Your task to perform on an android device: Do I have any events this weekend? Image 0: 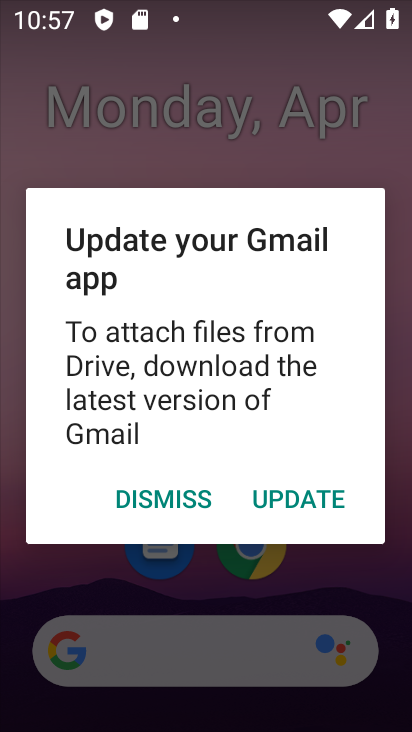
Step 0: press home button
Your task to perform on an android device: Do I have any events this weekend? Image 1: 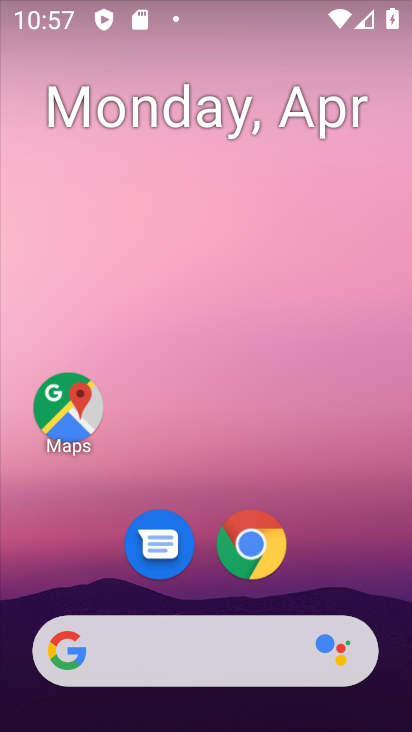
Step 1: drag from (376, 512) to (377, 5)
Your task to perform on an android device: Do I have any events this weekend? Image 2: 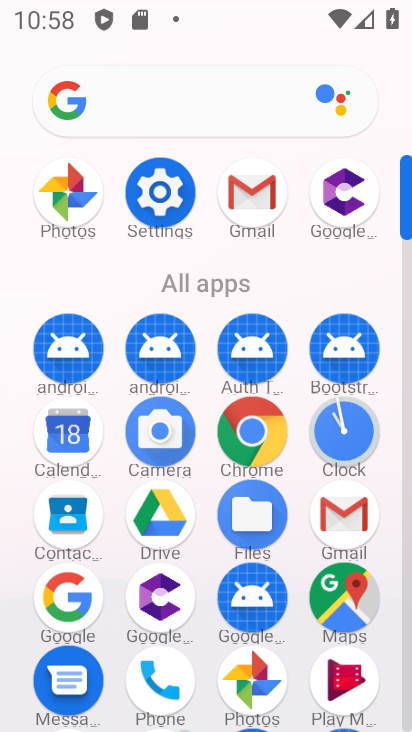
Step 2: click (64, 441)
Your task to perform on an android device: Do I have any events this weekend? Image 3: 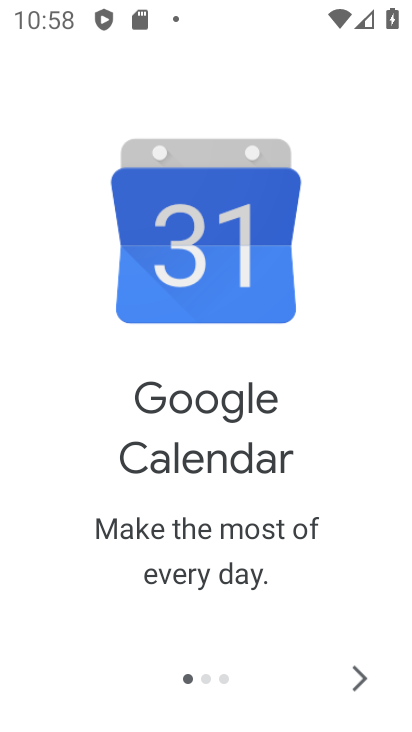
Step 3: click (366, 679)
Your task to perform on an android device: Do I have any events this weekend? Image 4: 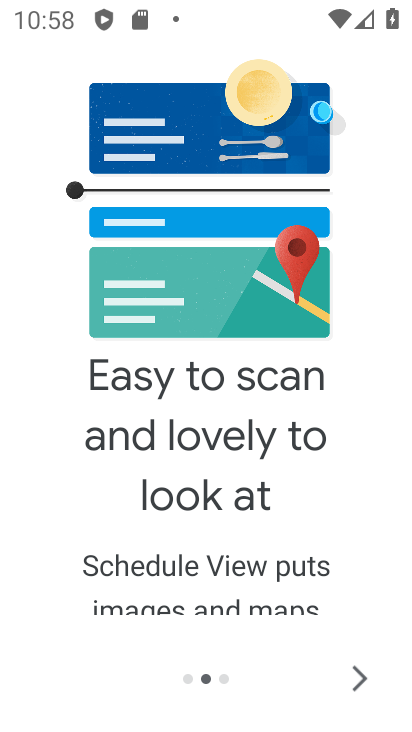
Step 4: click (366, 679)
Your task to perform on an android device: Do I have any events this weekend? Image 5: 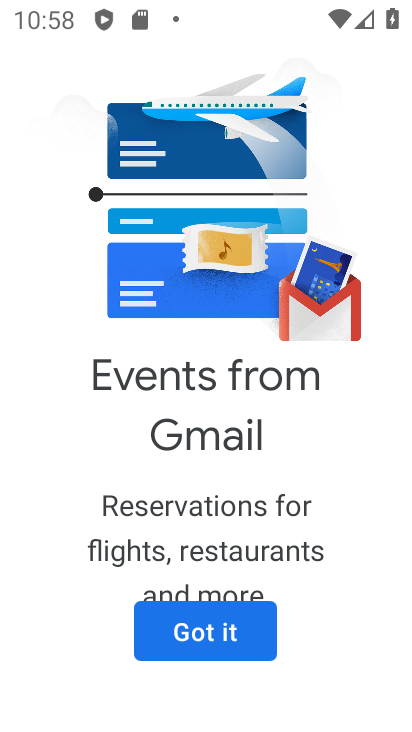
Step 5: click (214, 635)
Your task to perform on an android device: Do I have any events this weekend? Image 6: 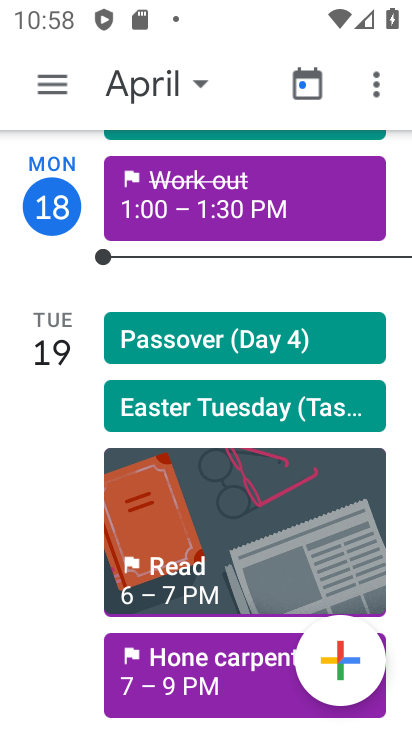
Step 6: click (199, 91)
Your task to perform on an android device: Do I have any events this weekend? Image 7: 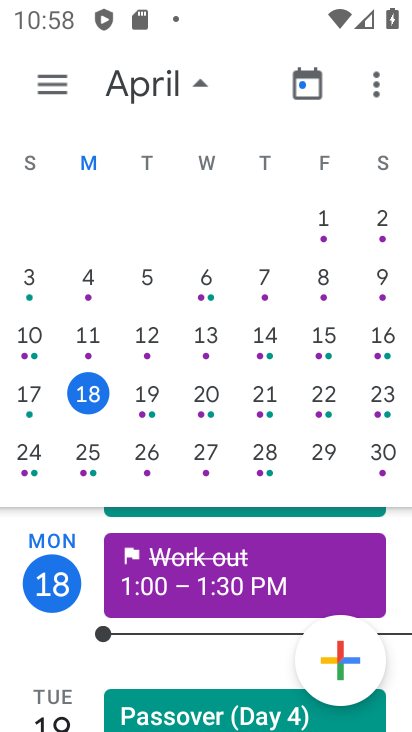
Step 7: click (22, 459)
Your task to perform on an android device: Do I have any events this weekend? Image 8: 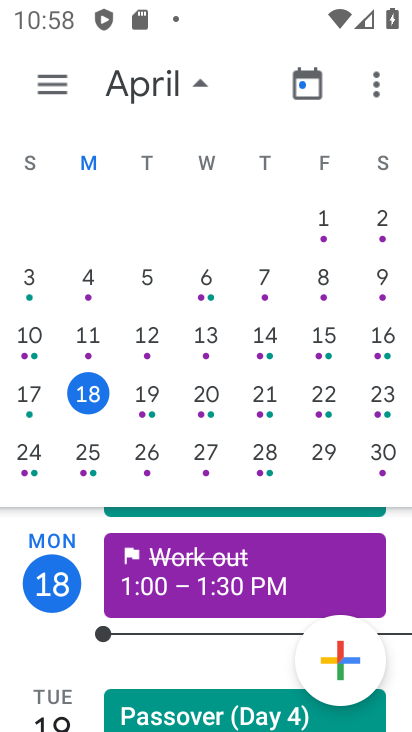
Step 8: click (28, 455)
Your task to perform on an android device: Do I have any events this weekend? Image 9: 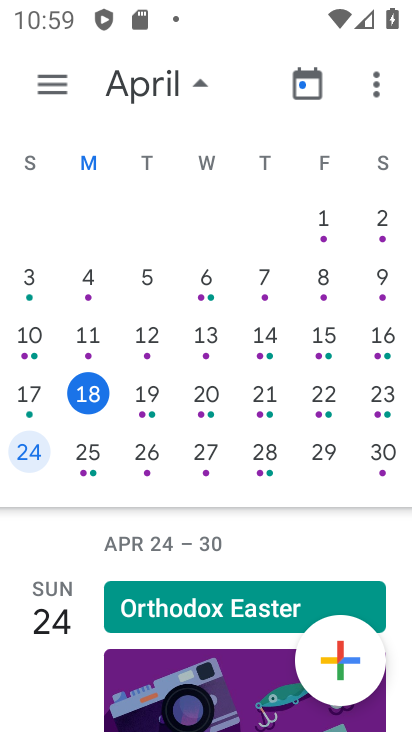
Step 9: drag from (209, 586) to (229, 277)
Your task to perform on an android device: Do I have any events this weekend? Image 10: 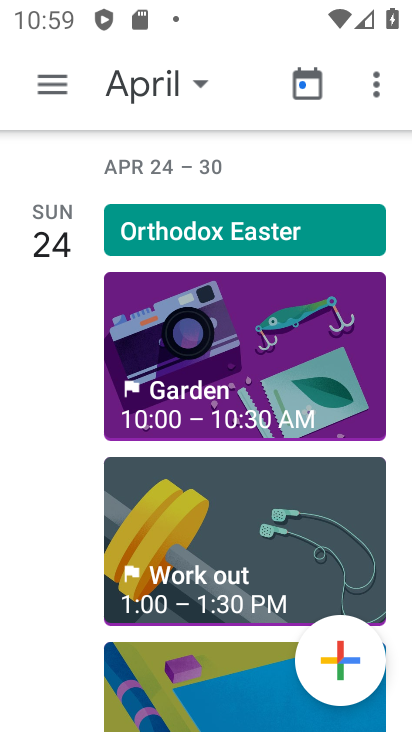
Step 10: click (236, 401)
Your task to perform on an android device: Do I have any events this weekend? Image 11: 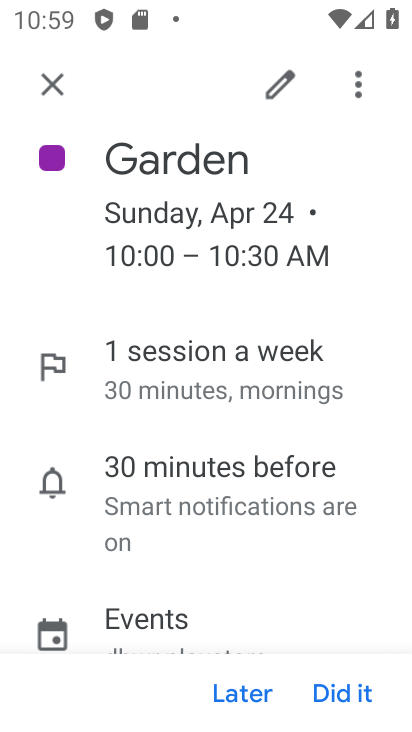
Step 11: task complete